Your task to perform on an android device: Open my contact list Image 0: 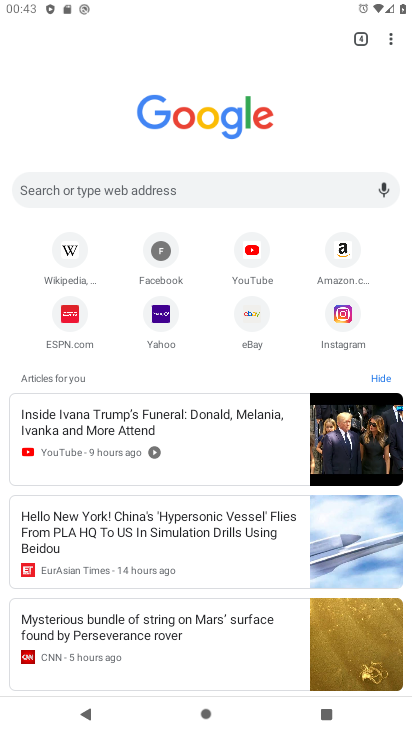
Step 0: press home button
Your task to perform on an android device: Open my contact list Image 1: 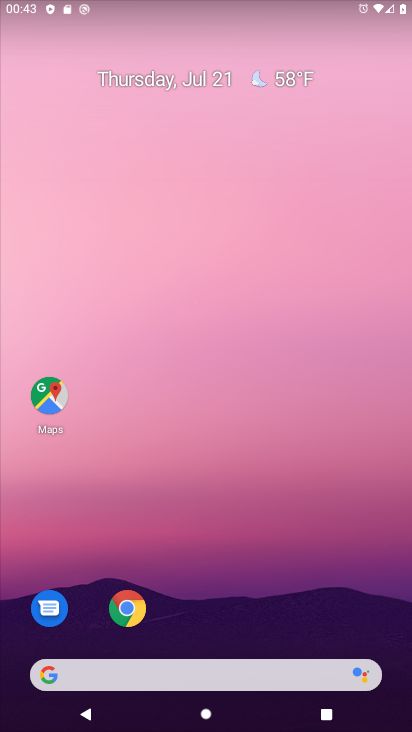
Step 1: drag from (211, 640) to (222, 53)
Your task to perform on an android device: Open my contact list Image 2: 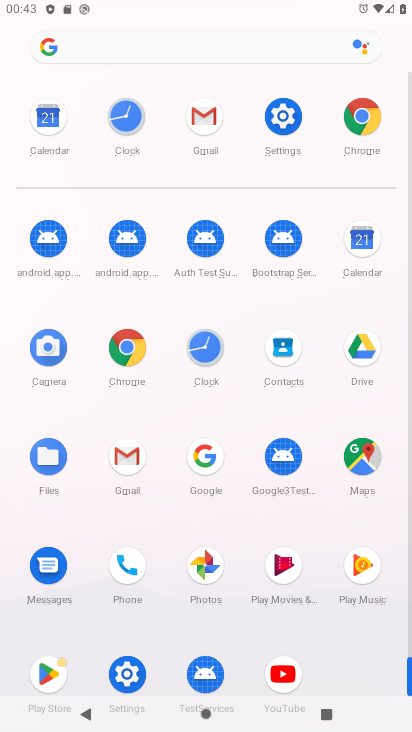
Step 2: click (280, 341)
Your task to perform on an android device: Open my contact list Image 3: 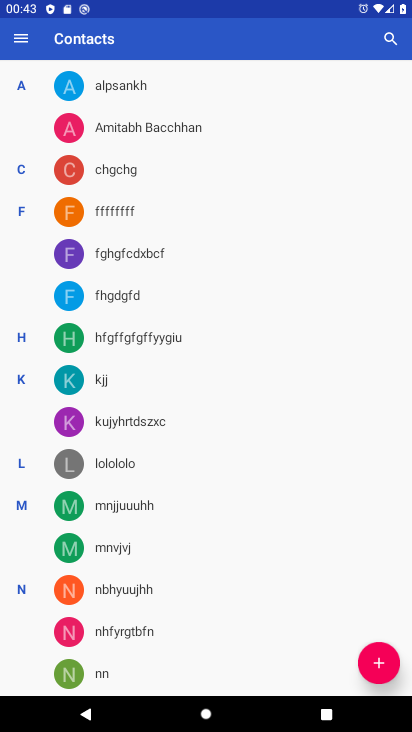
Step 3: task complete